Your task to perform on an android device: Show me recent news Image 0: 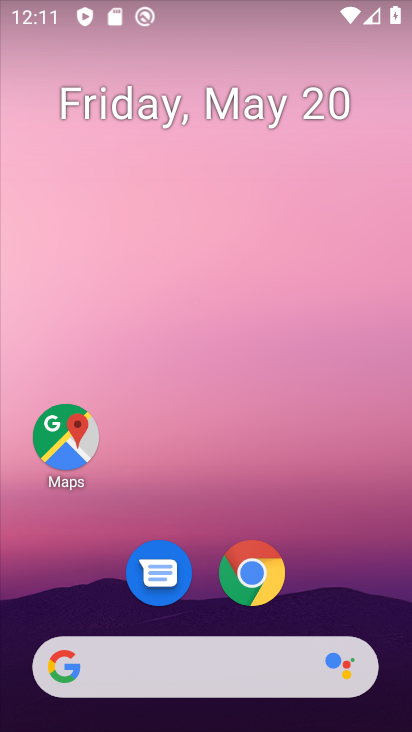
Step 0: click (190, 674)
Your task to perform on an android device: Show me recent news Image 1: 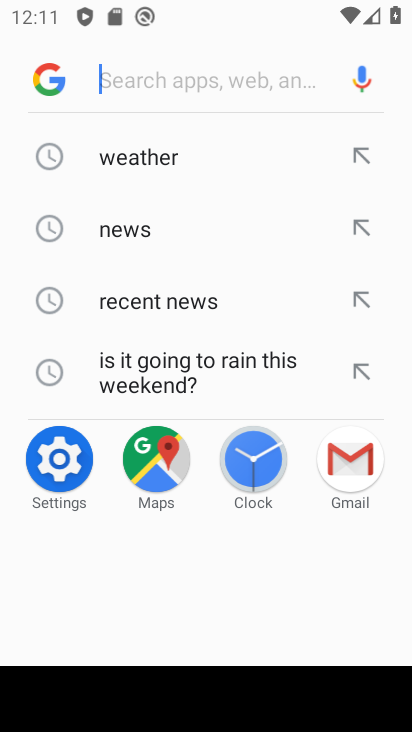
Step 1: type "recent news"
Your task to perform on an android device: Show me recent news Image 2: 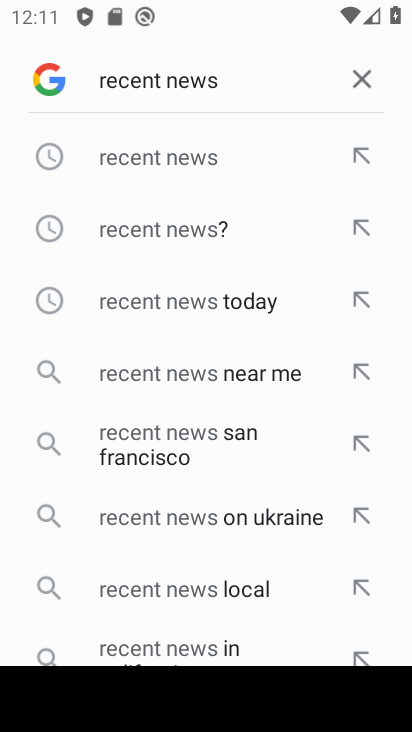
Step 2: click (206, 153)
Your task to perform on an android device: Show me recent news Image 3: 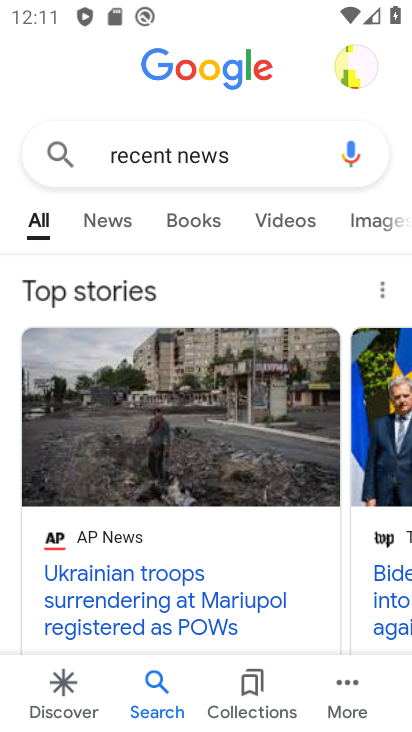
Step 3: click (102, 215)
Your task to perform on an android device: Show me recent news Image 4: 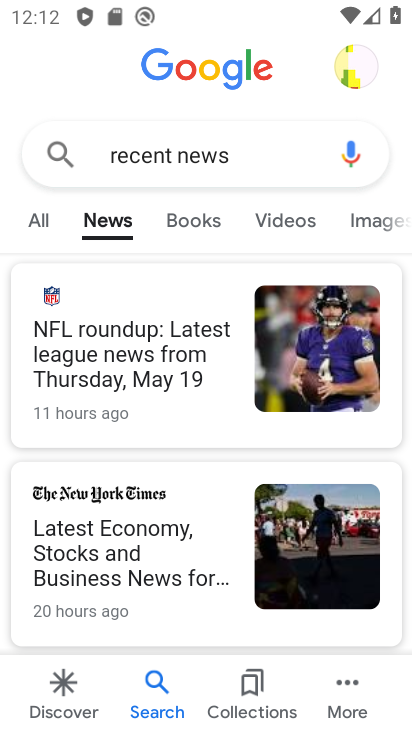
Step 4: task complete